Your task to perform on an android device: change timer sound Image 0: 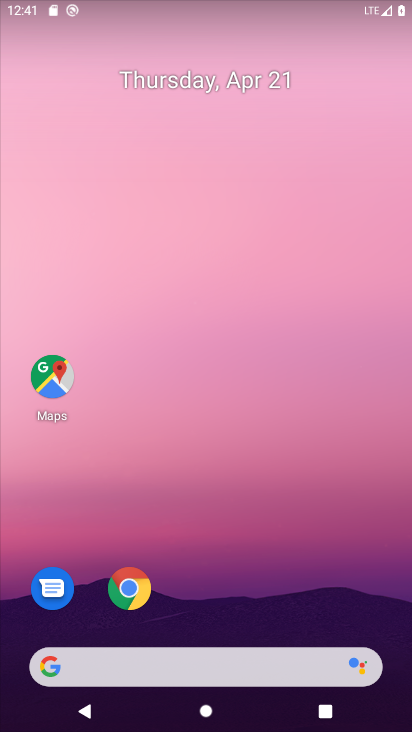
Step 0: drag from (218, 513) to (271, 85)
Your task to perform on an android device: change timer sound Image 1: 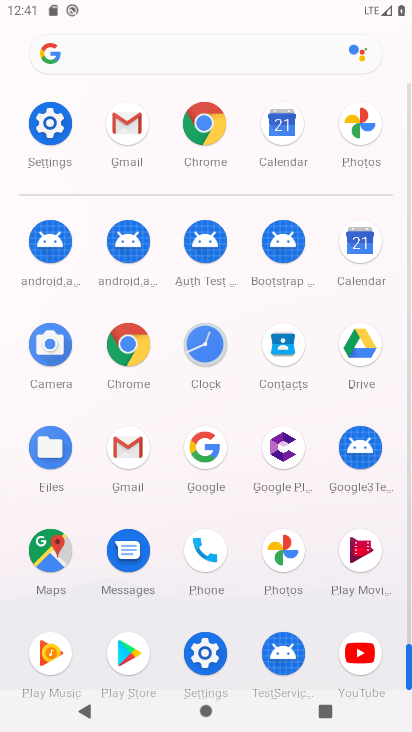
Step 1: click (203, 338)
Your task to perform on an android device: change timer sound Image 2: 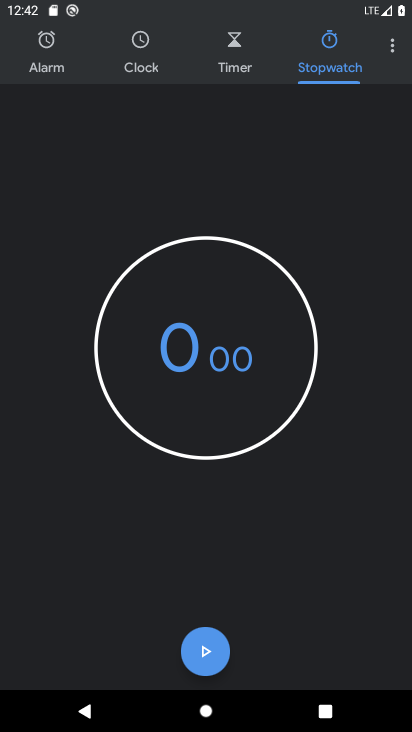
Step 2: click (389, 38)
Your task to perform on an android device: change timer sound Image 3: 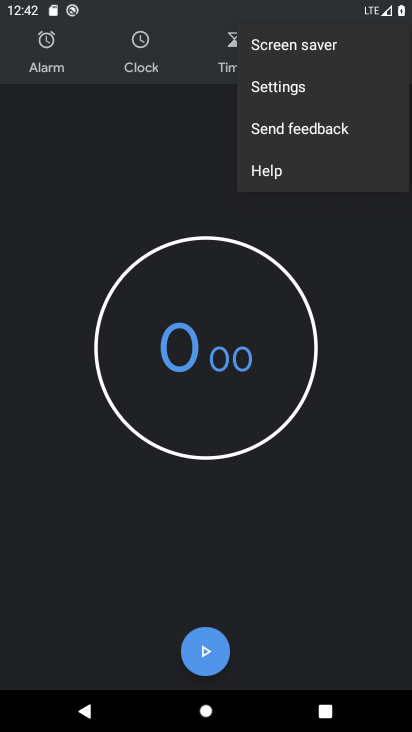
Step 3: click (300, 84)
Your task to perform on an android device: change timer sound Image 4: 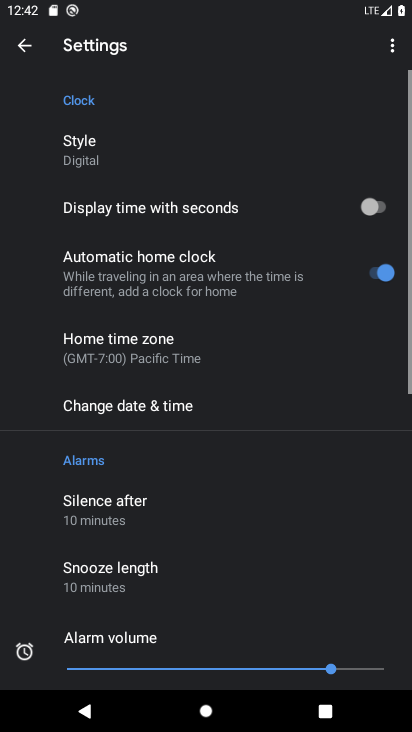
Step 4: drag from (229, 581) to (279, 82)
Your task to perform on an android device: change timer sound Image 5: 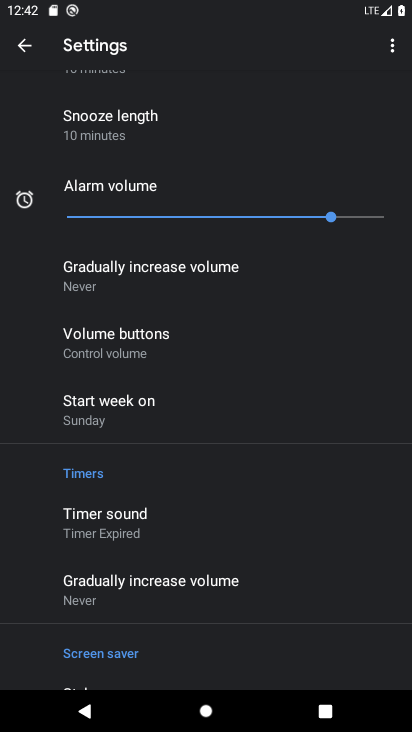
Step 5: click (156, 526)
Your task to perform on an android device: change timer sound Image 6: 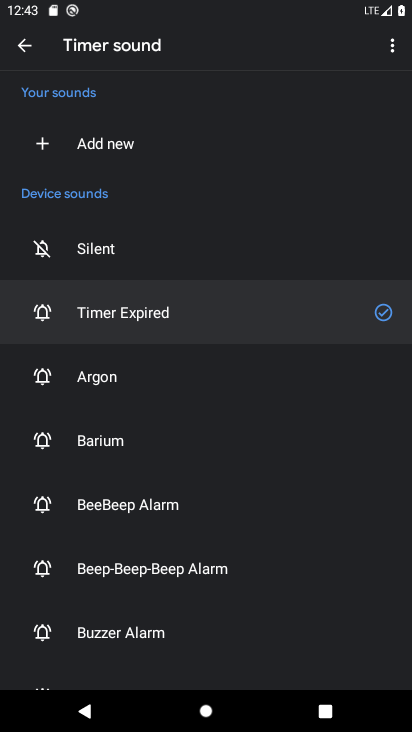
Step 6: click (178, 629)
Your task to perform on an android device: change timer sound Image 7: 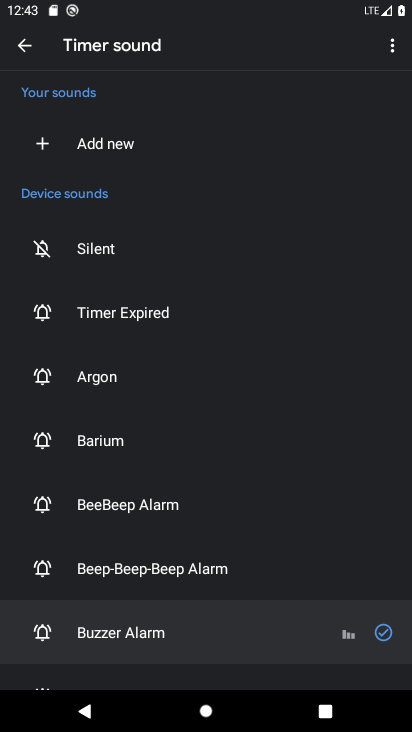
Step 7: task complete